Your task to perform on an android device: clear history in the chrome app Image 0: 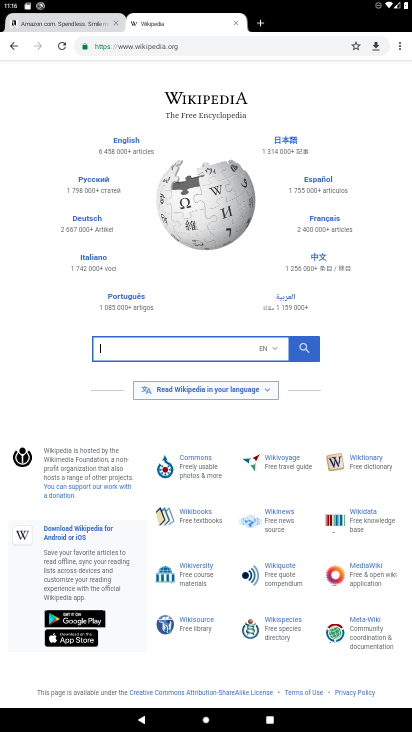
Step 0: click (402, 52)
Your task to perform on an android device: clear history in the chrome app Image 1: 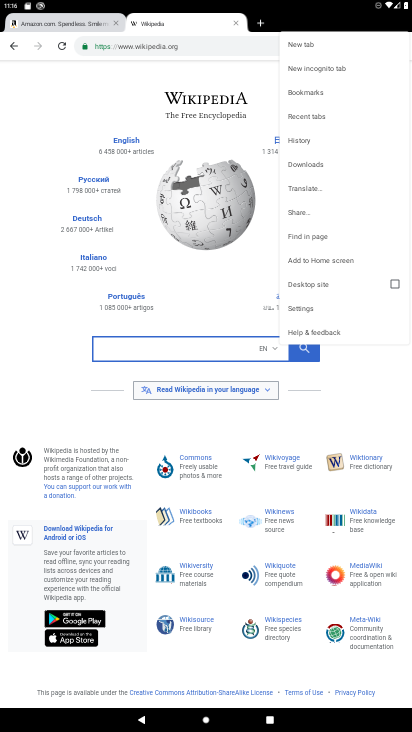
Step 1: click (300, 139)
Your task to perform on an android device: clear history in the chrome app Image 2: 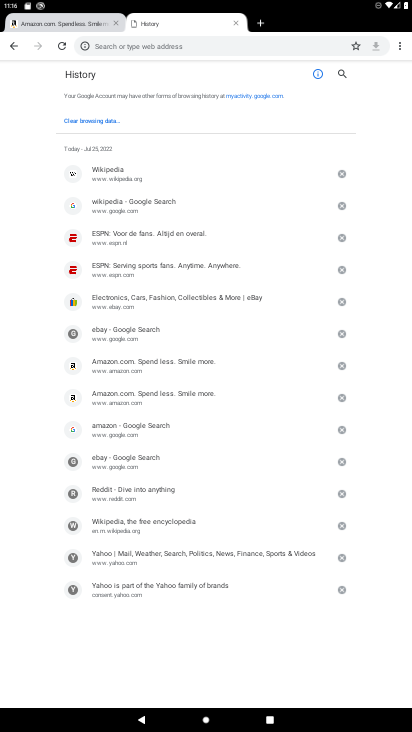
Step 2: click (80, 113)
Your task to perform on an android device: clear history in the chrome app Image 3: 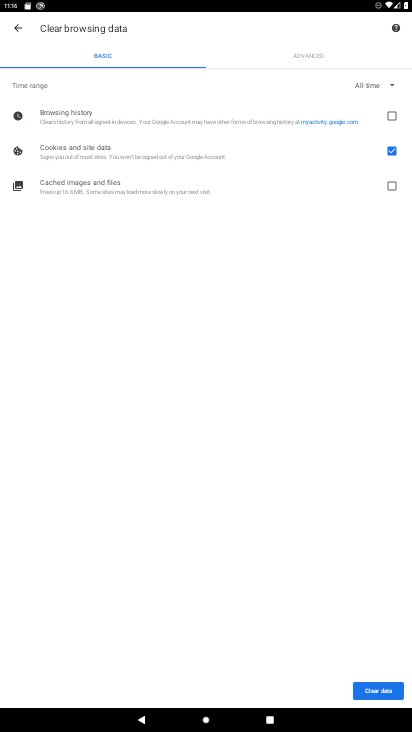
Step 3: click (391, 115)
Your task to perform on an android device: clear history in the chrome app Image 4: 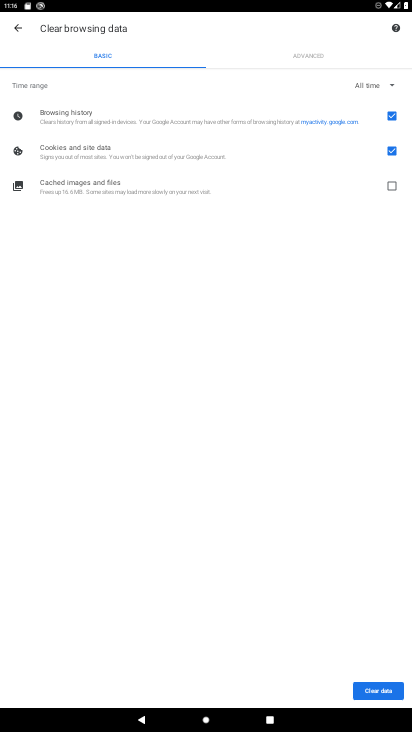
Step 4: click (390, 146)
Your task to perform on an android device: clear history in the chrome app Image 5: 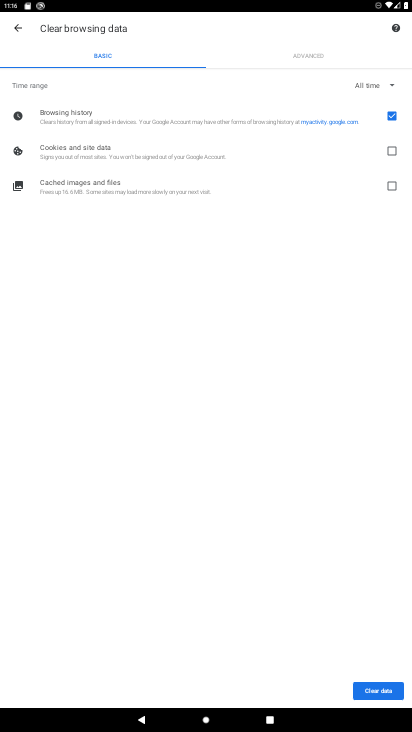
Step 5: click (373, 685)
Your task to perform on an android device: clear history in the chrome app Image 6: 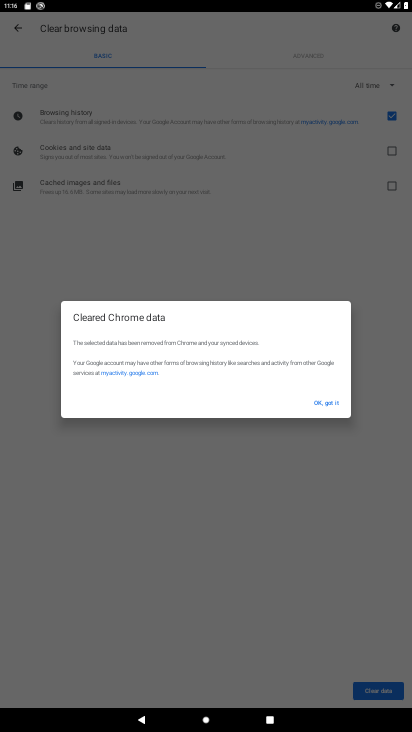
Step 6: click (328, 395)
Your task to perform on an android device: clear history in the chrome app Image 7: 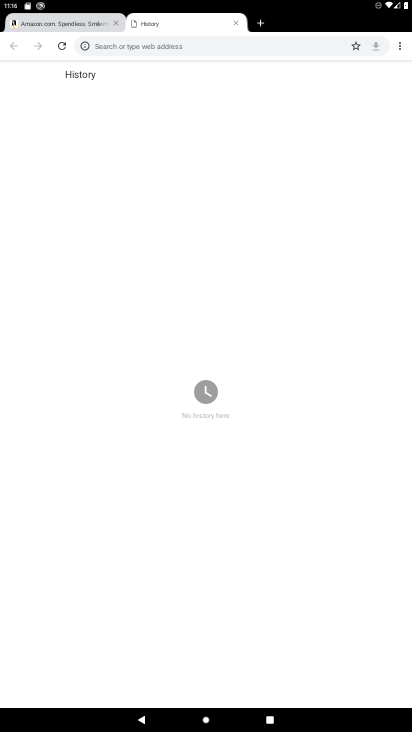
Step 7: task complete